Your task to perform on an android device: turn off location history Image 0: 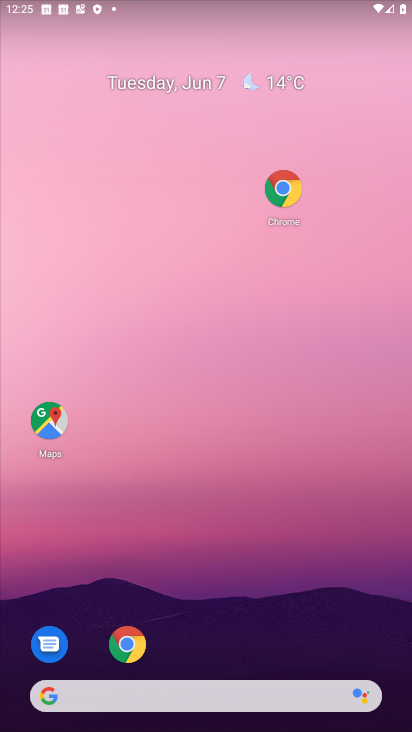
Step 0: drag from (292, 603) to (207, 35)
Your task to perform on an android device: turn off location history Image 1: 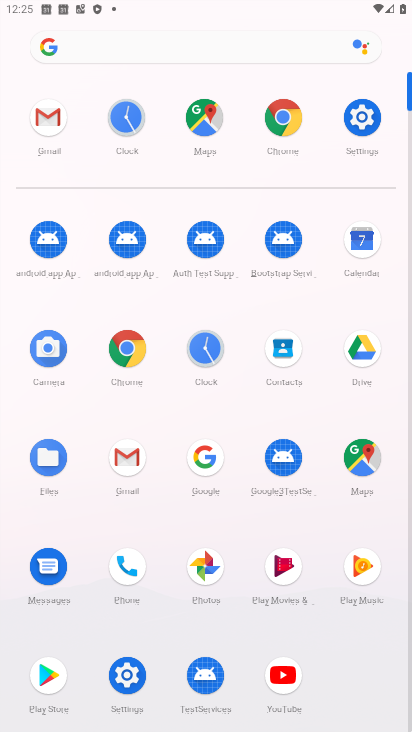
Step 1: click (362, 125)
Your task to perform on an android device: turn off location history Image 2: 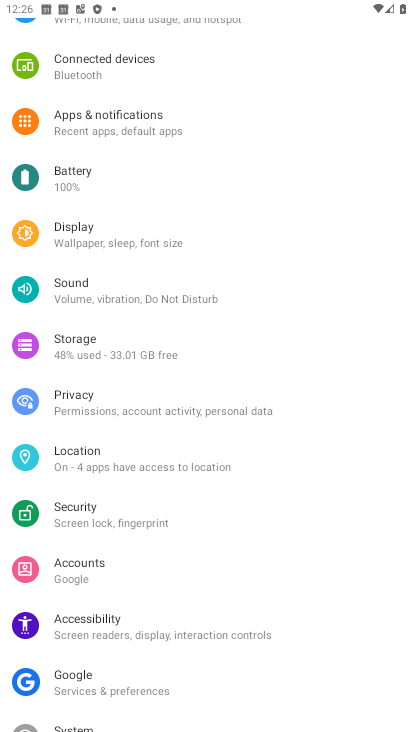
Step 2: click (145, 454)
Your task to perform on an android device: turn off location history Image 3: 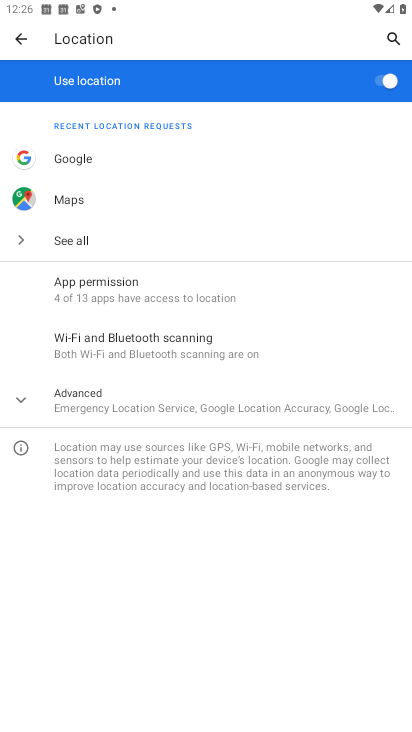
Step 3: click (109, 398)
Your task to perform on an android device: turn off location history Image 4: 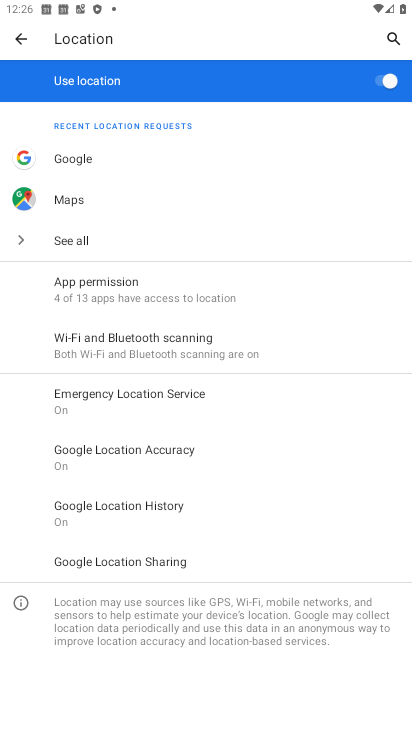
Step 4: click (143, 510)
Your task to perform on an android device: turn off location history Image 5: 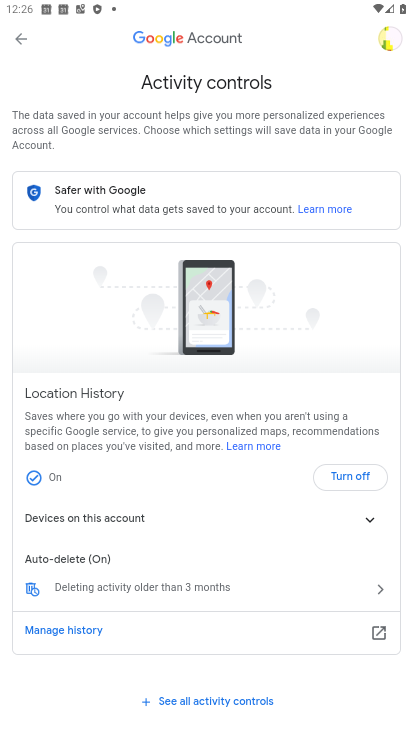
Step 5: click (337, 474)
Your task to perform on an android device: turn off location history Image 6: 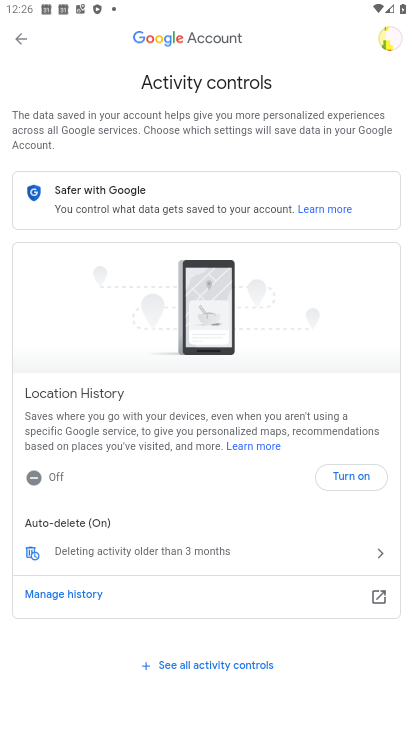
Step 6: task complete